Your task to perform on an android device: turn on bluetooth scan Image 0: 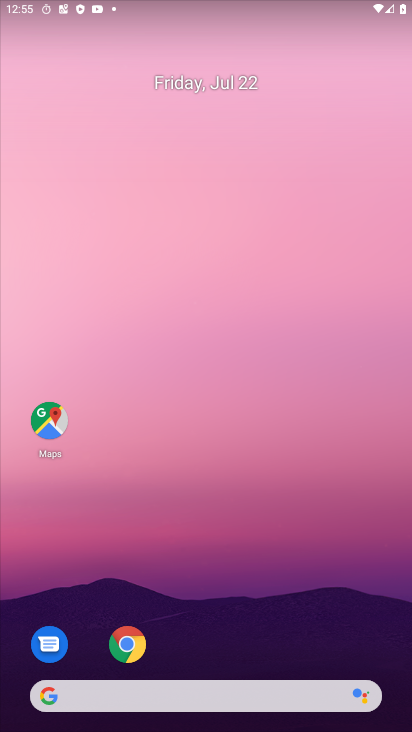
Step 0: drag from (261, 682) to (248, 162)
Your task to perform on an android device: turn on bluetooth scan Image 1: 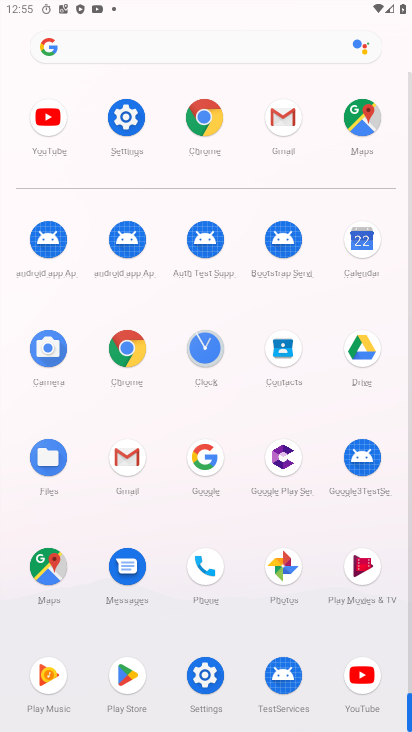
Step 1: click (121, 114)
Your task to perform on an android device: turn on bluetooth scan Image 2: 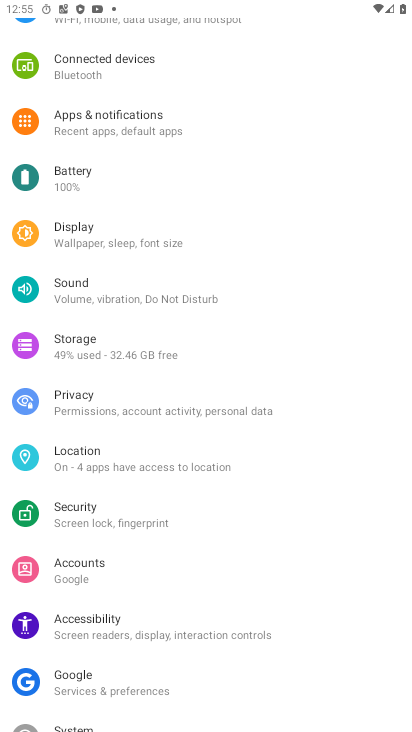
Step 2: drag from (85, 257) to (49, 606)
Your task to perform on an android device: turn on bluetooth scan Image 3: 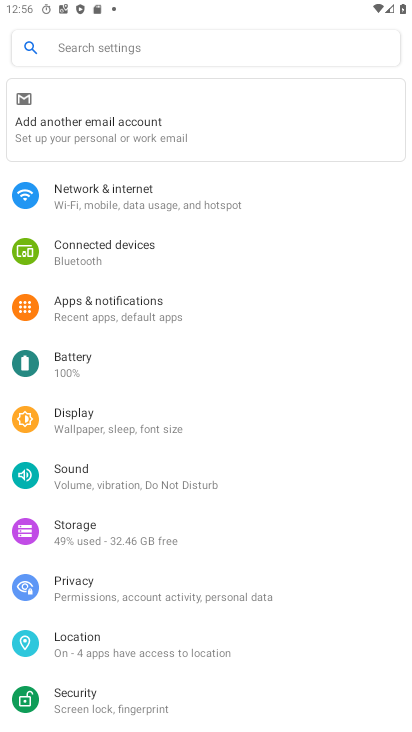
Step 3: click (129, 252)
Your task to perform on an android device: turn on bluetooth scan Image 4: 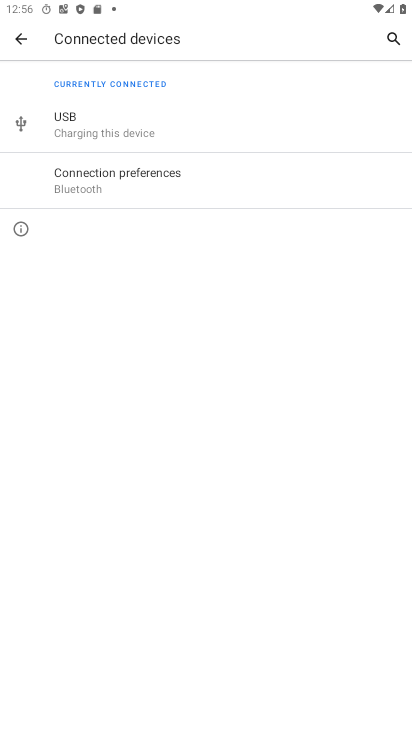
Step 4: click (172, 180)
Your task to perform on an android device: turn on bluetooth scan Image 5: 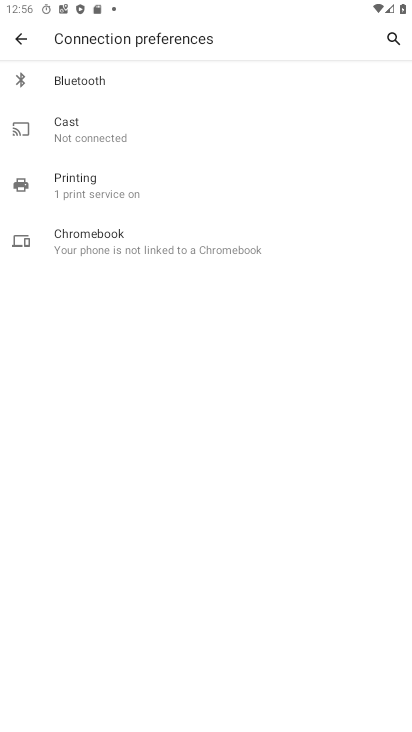
Step 5: click (120, 89)
Your task to perform on an android device: turn on bluetooth scan Image 6: 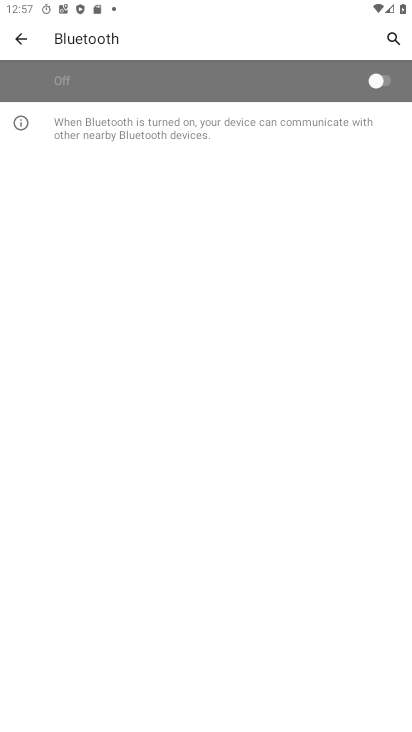
Step 6: click (202, 94)
Your task to perform on an android device: turn on bluetooth scan Image 7: 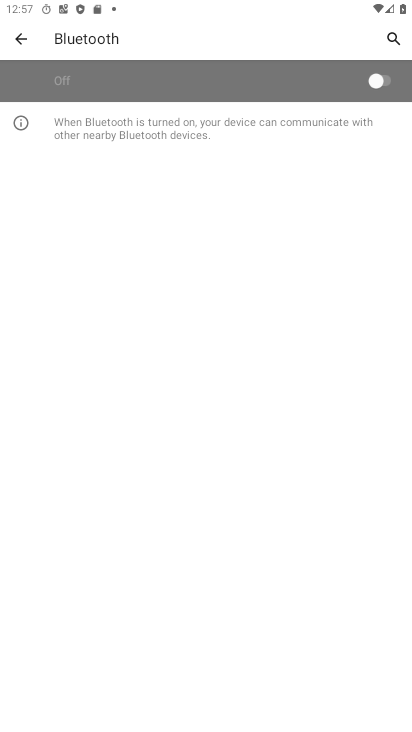
Step 7: task complete